Your task to perform on an android device: Go to wifi settings Image 0: 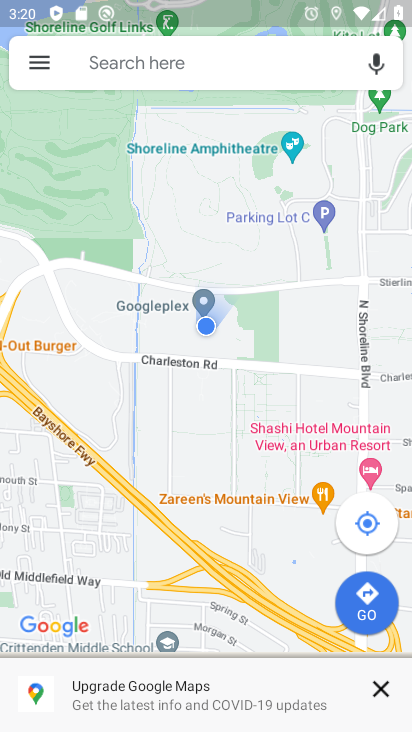
Step 0: press home button
Your task to perform on an android device: Go to wifi settings Image 1: 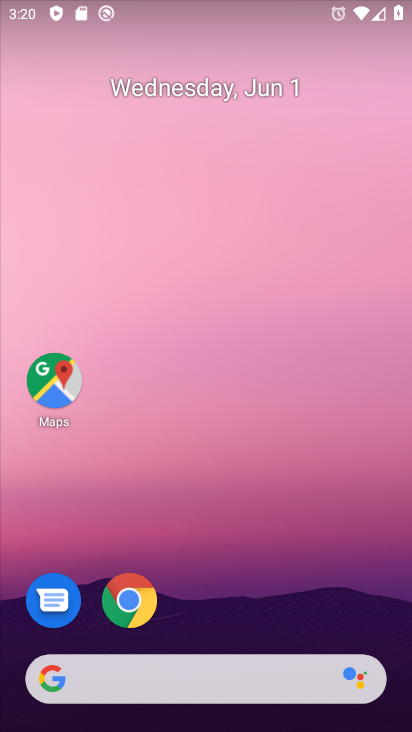
Step 1: drag from (221, 625) to (240, 249)
Your task to perform on an android device: Go to wifi settings Image 2: 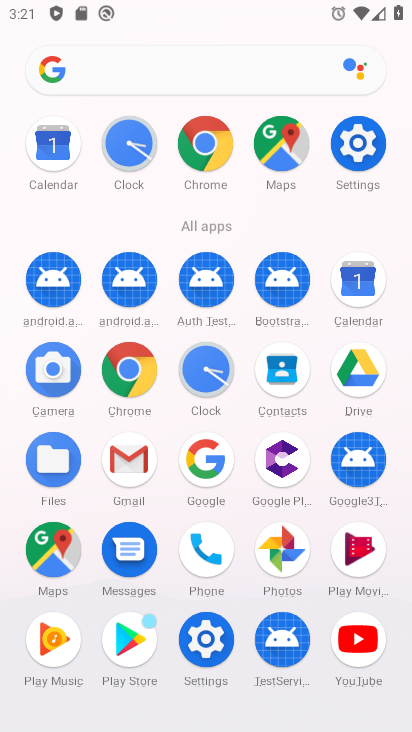
Step 2: click (359, 149)
Your task to perform on an android device: Go to wifi settings Image 3: 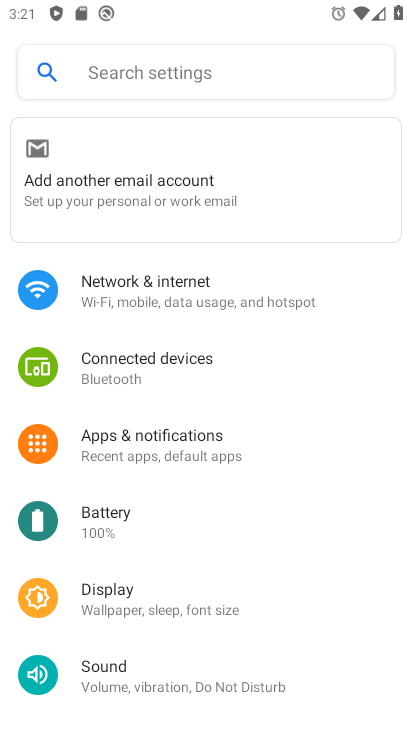
Step 3: click (184, 290)
Your task to perform on an android device: Go to wifi settings Image 4: 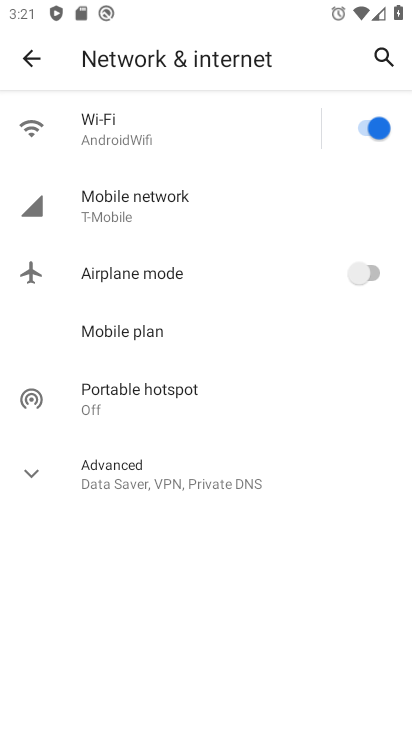
Step 4: click (95, 128)
Your task to perform on an android device: Go to wifi settings Image 5: 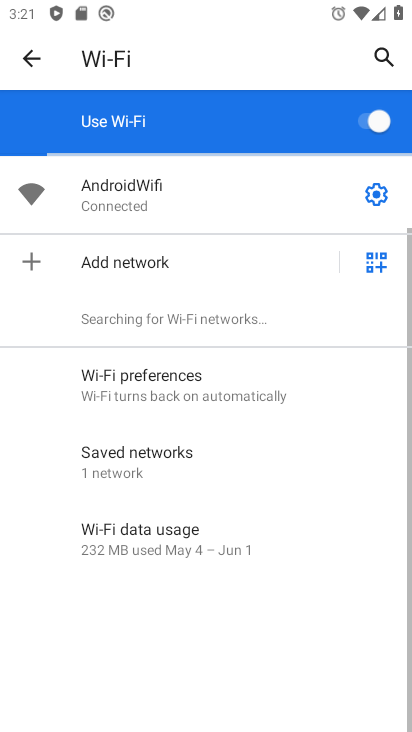
Step 5: task complete